Your task to perform on an android device: Open Yahoo.com Image 0: 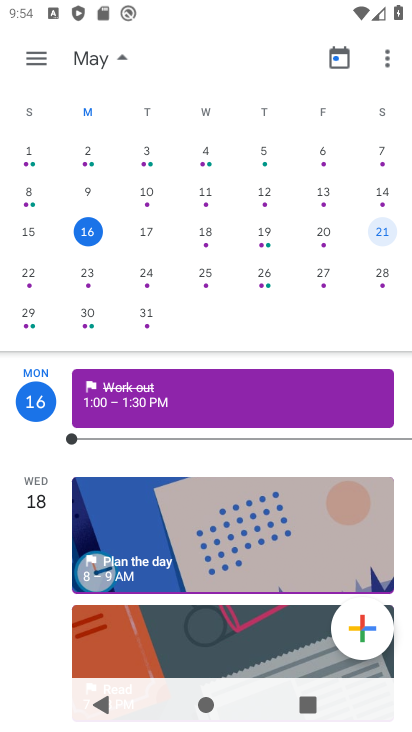
Step 0: press home button
Your task to perform on an android device: Open Yahoo.com Image 1: 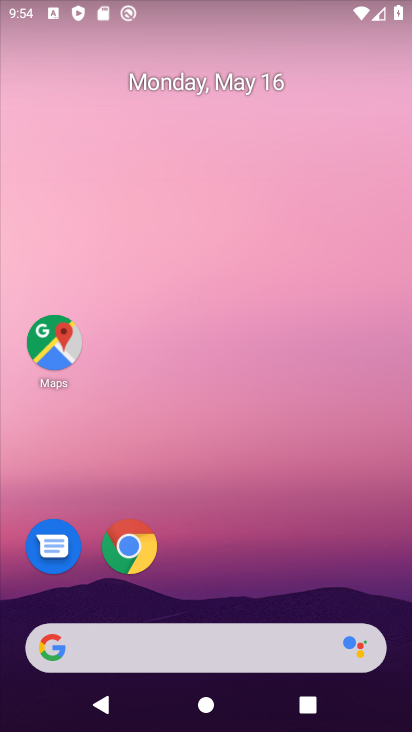
Step 1: click (118, 553)
Your task to perform on an android device: Open Yahoo.com Image 2: 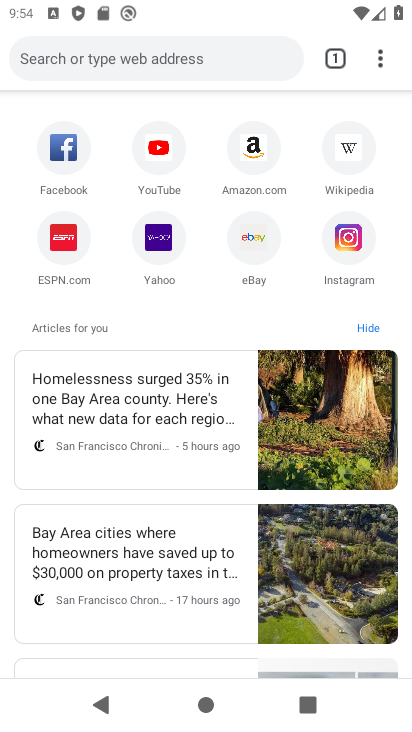
Step 2: click (158, 244)
Your task to perform on an android device: Open Yahoo.com Image 3: 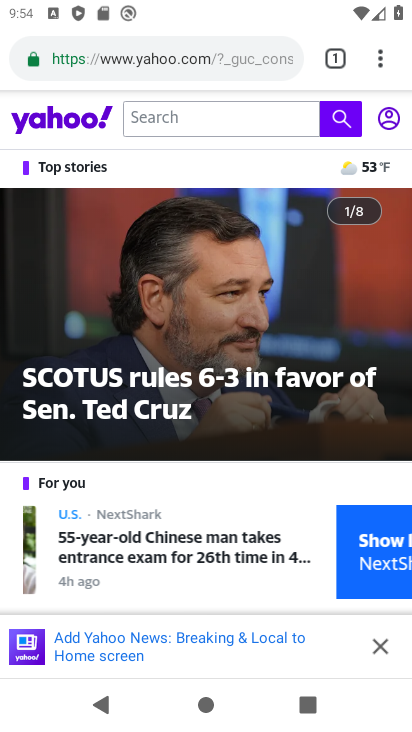
Step 3: task complete